Your task to perform on an android device: find which apps use the phone's location Image 0: 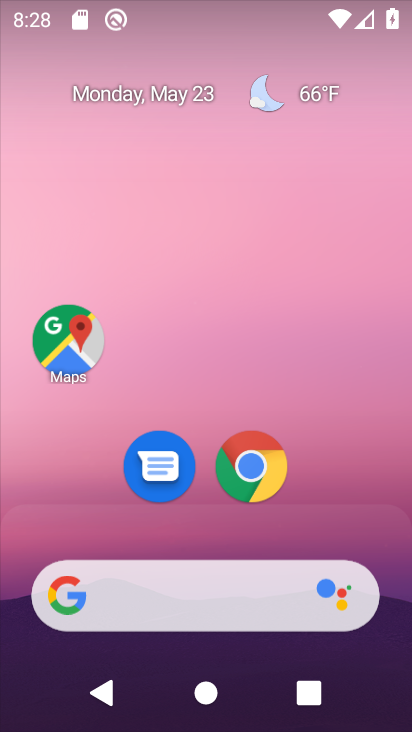
Step 0: drag from (208, 549) to (236, 96)
Your task to perform on an android device: find which apps use the phone's location Image 1: 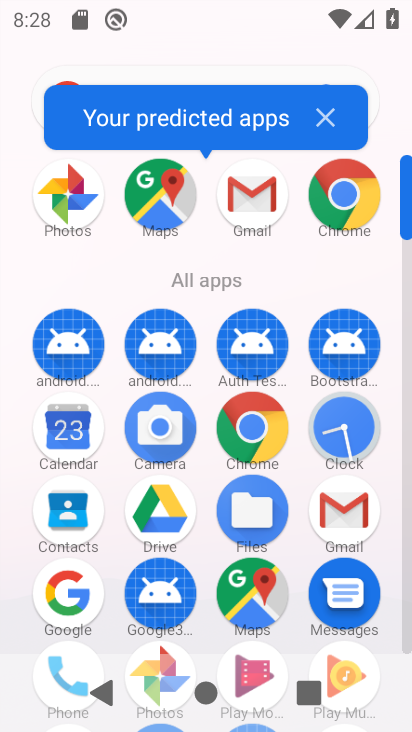
Step 1: drag from (194, 507) to (195, 168)
Your task to perform on an android device: find which apps use the phone's location Image 2: 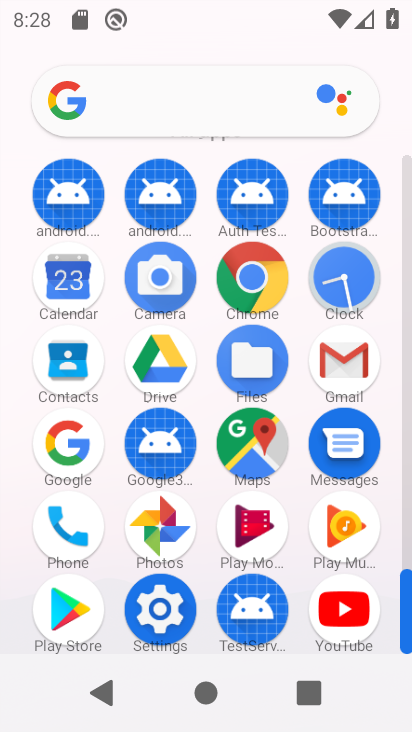
Step 2: click (175, 617)
Your task to perform on an android device: find which apps use the phone's location Image 3: 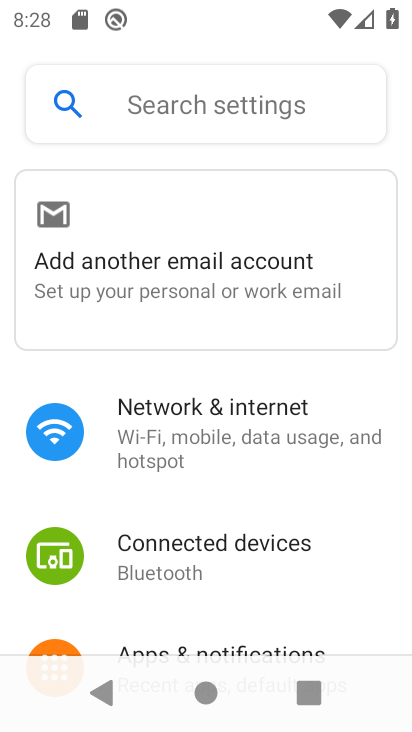
Step 3: drag from (251, 591) to (268, 221)
Your task to perform on an android device: find which apps use the phone's location Image 4: 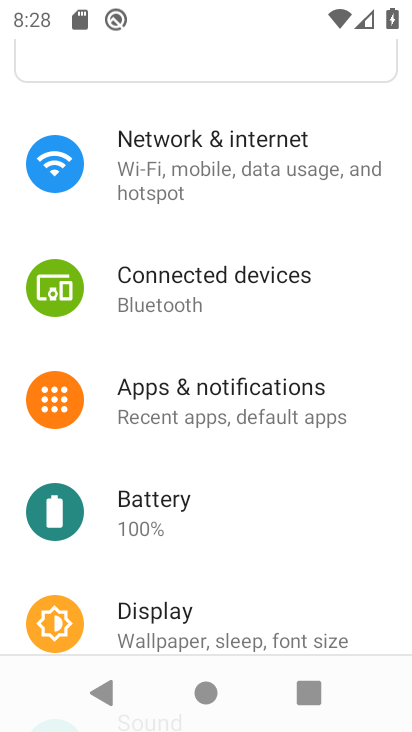
Step 4: drag from (268, 618) to (266, 286)
Your task to perform on an android device: find which apps use the phone's location Image 5: 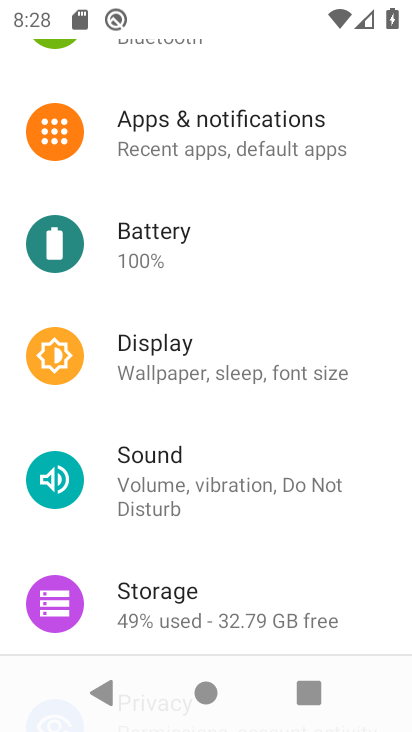
Step 5: drag from (259, 582) to (250, 298)
Your task to perform on an android device: find which apps use the phone's location Image 6: 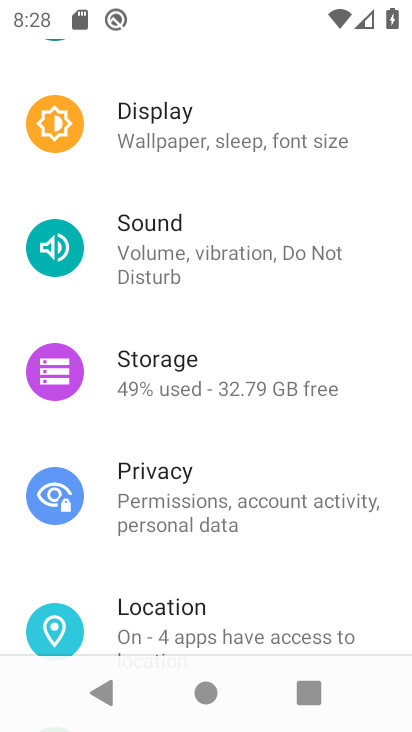
Step 6: click (172, 615)
Your task to perform on an android device: find which apps use the phone's location Image 7: 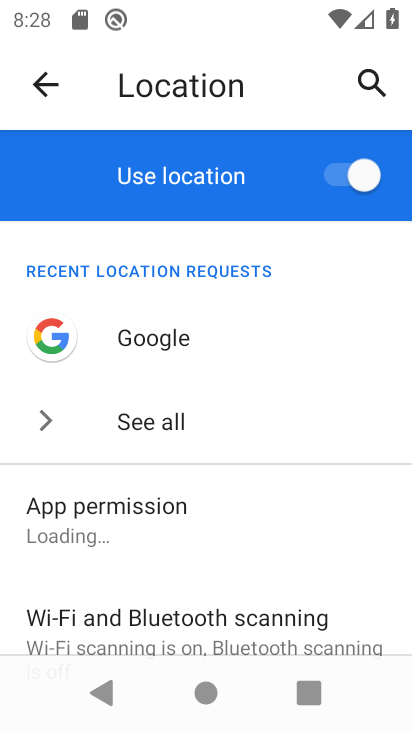
Step 7: drag from (207, 552) to (204, 422)
Your task to perform on an android device: find which apps use the phone's location Image 8: 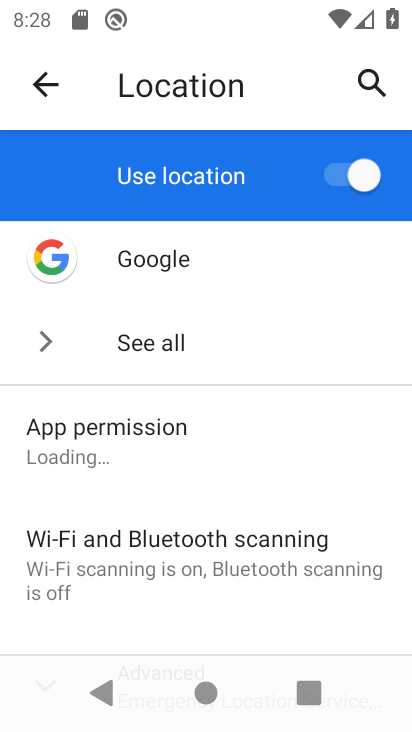
Step 8: click (135, 443)
Your task to perform on an android device: find which apps use the phone's location Image 9: 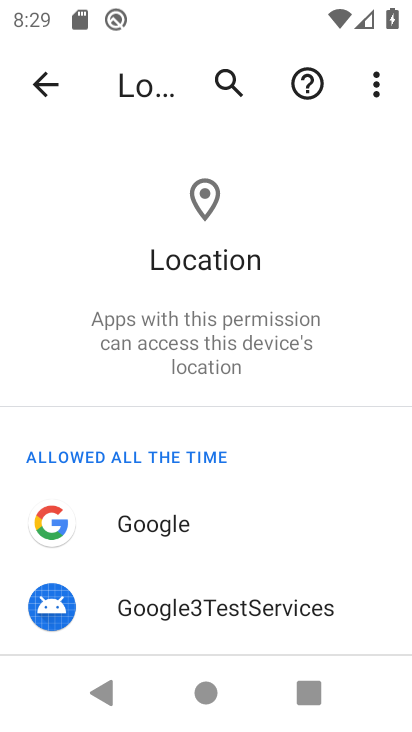
Step 9: task complete